Your task to perform on an android device: open app "PUBG MOBILE" (install if not already installed) Image 0: 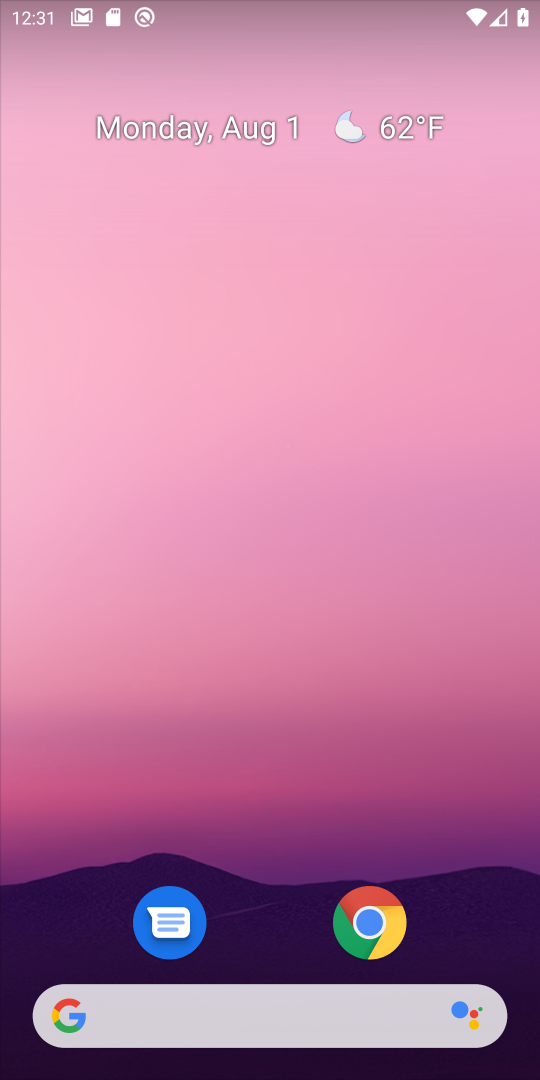
Step 0: drag from (279, 879) to (295, 247)
Your task to perform on an android device: open app "PUBG MOBILE" (install if not already installed) Image 1: 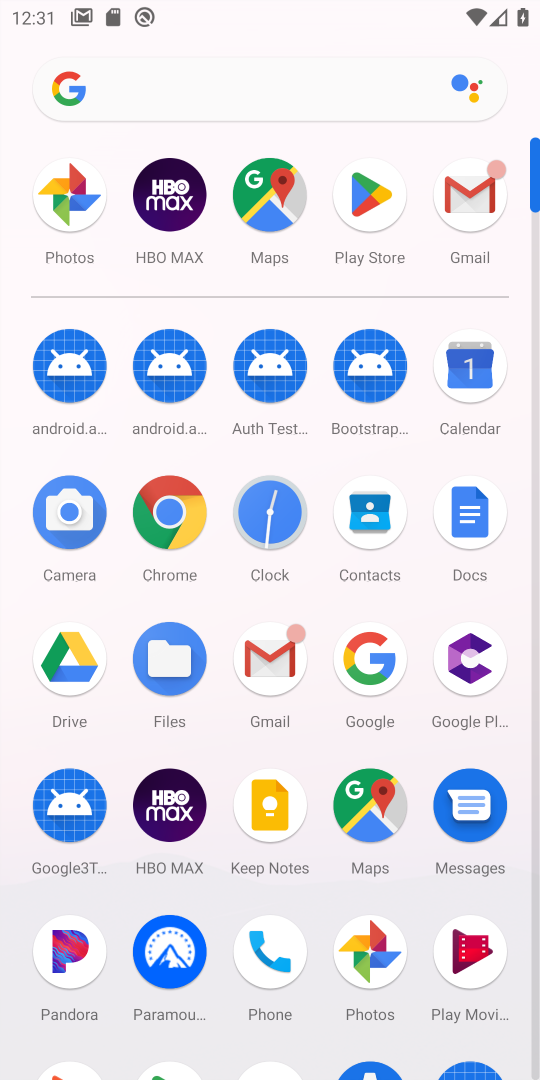
Step 1: click (365, 226)
Your task to perform on an android device: open app "PUBG MOBILE" (install if not already installed) Image 2: 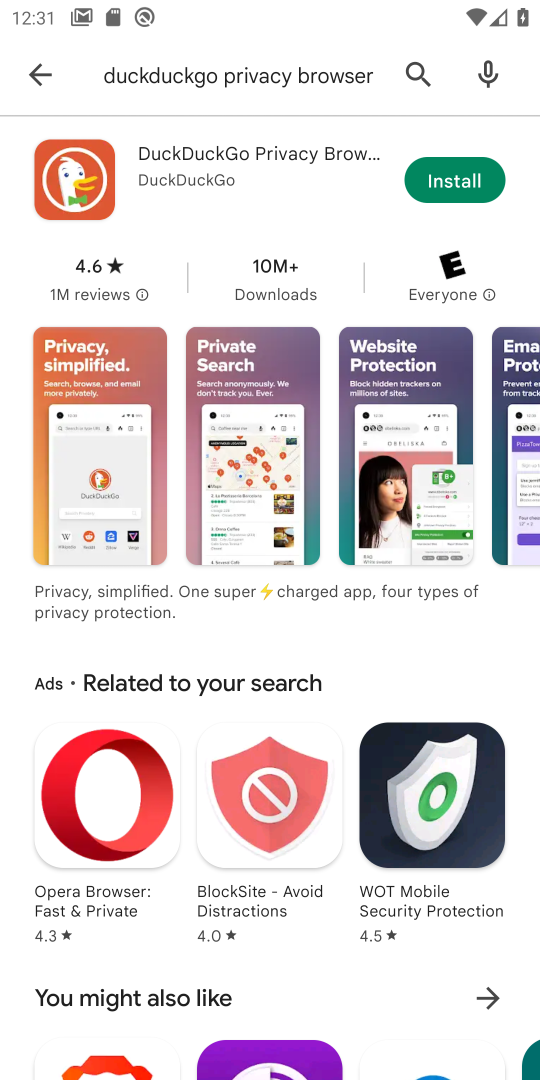
Step 2: click (399, 74)
Your task to perform on an android device: open app "PUBG MOBILE" (install if not already installed) Image 3: 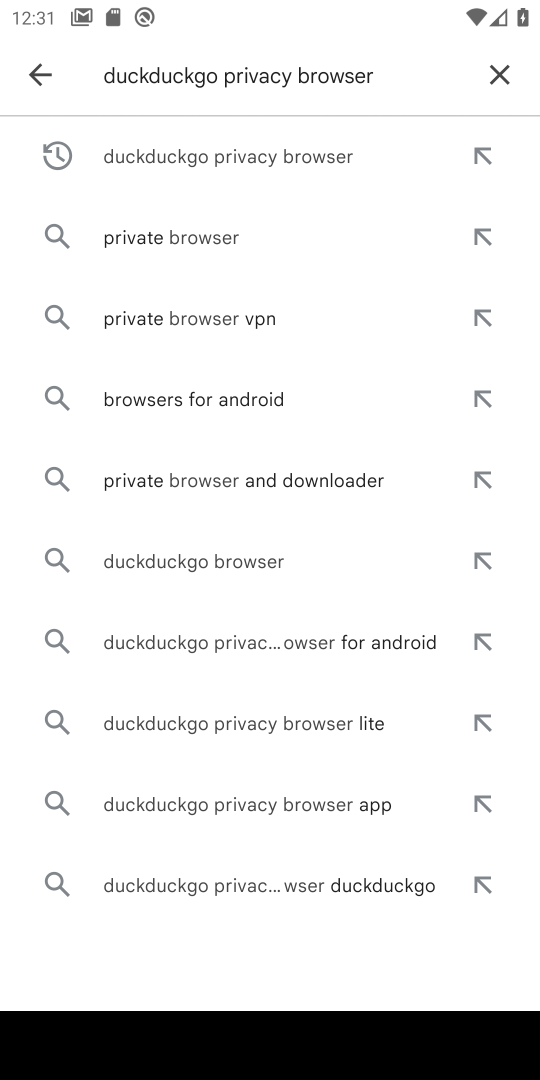
Step 3: click (514, 74)
Your task to perform on an android device: open app "PUBG MOBILE" (install if not already installed) Image 4: 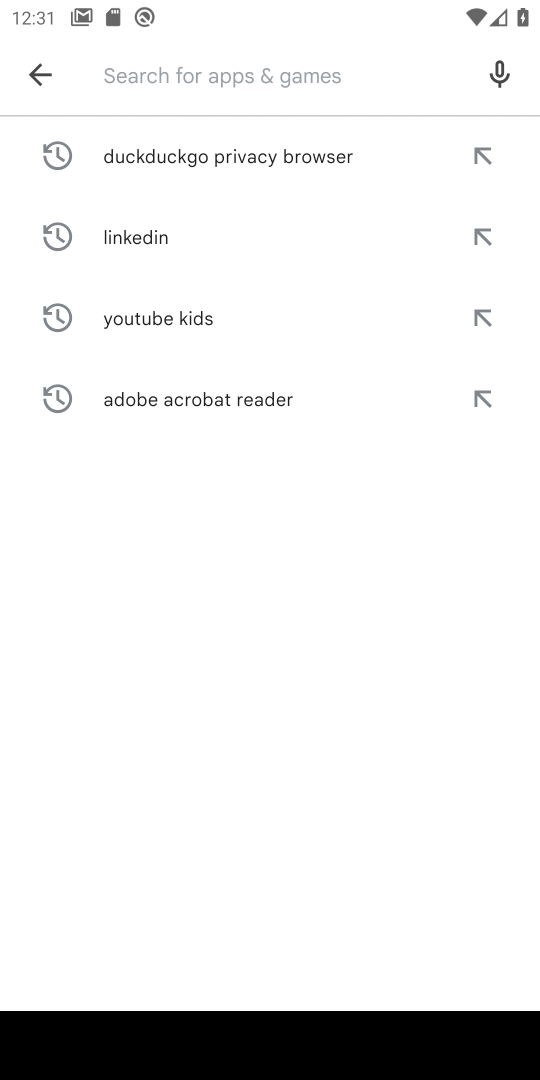
Step 4: type "PUBG MOBILE"
Your task to perform on an android device: open app "PUBG MOBILE" (install if not already installed) Image 5: 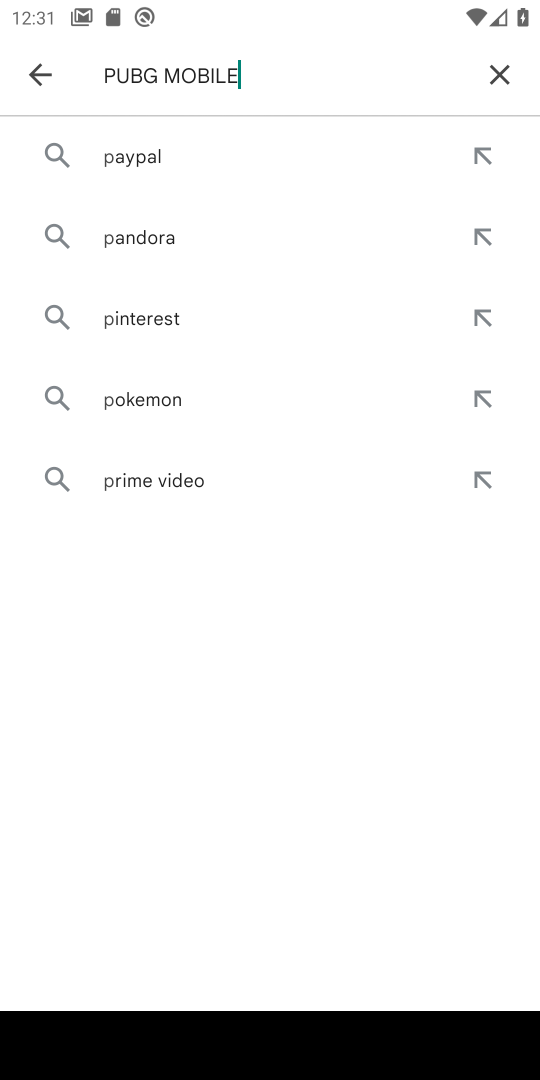
Step 5: type ""
Your task to perform on an android device: open app "PUBG MOBILE" (install if not already installed) Image 6: 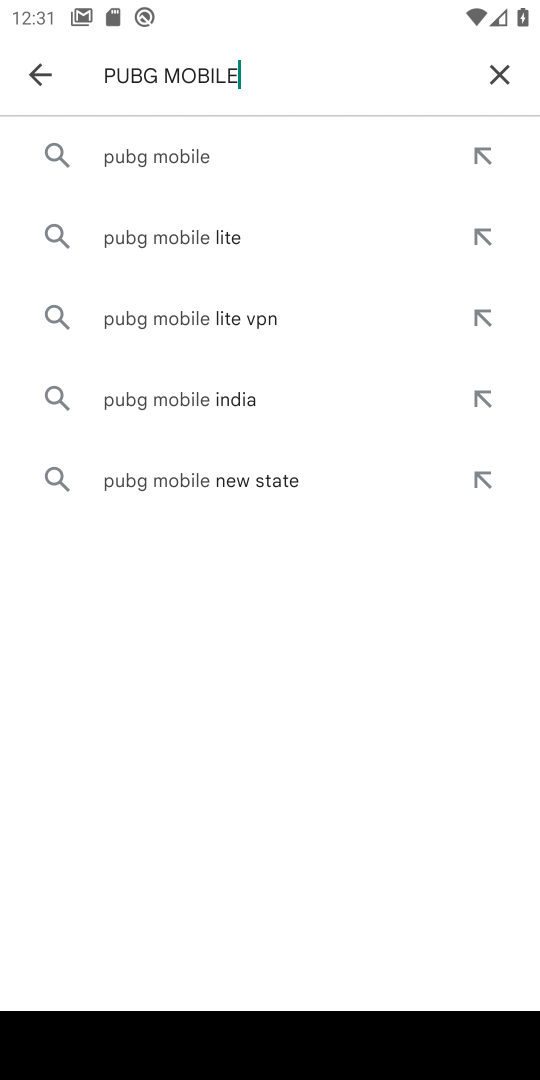
Step 6: click (254, 143)
Your task to perform on an android device: open app "PUBG MOBILE" (install if not already installed) Image 7: 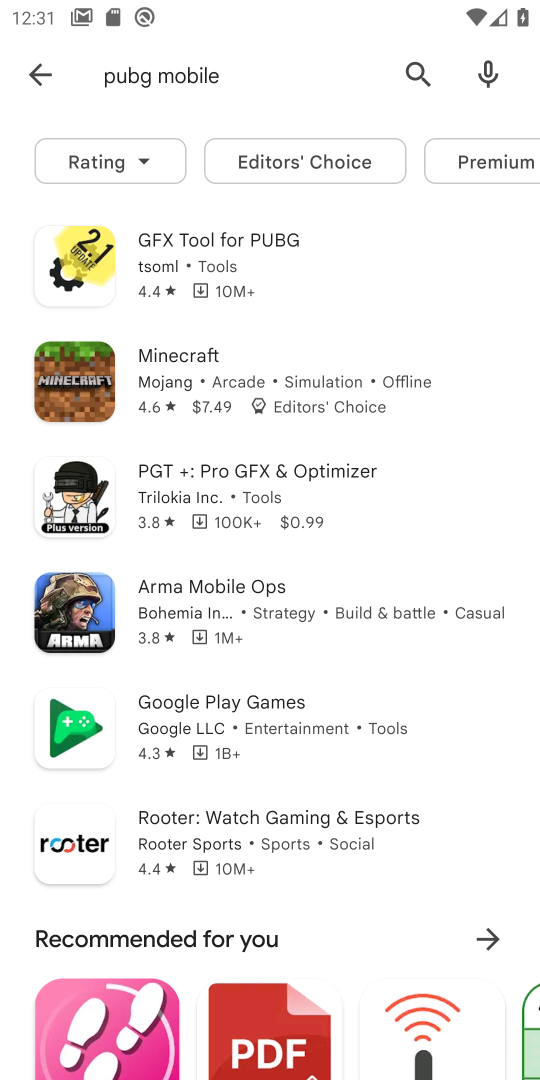
Step 7: task complete